Your task to perform on an android device: Toggle the flashlight Image 0: 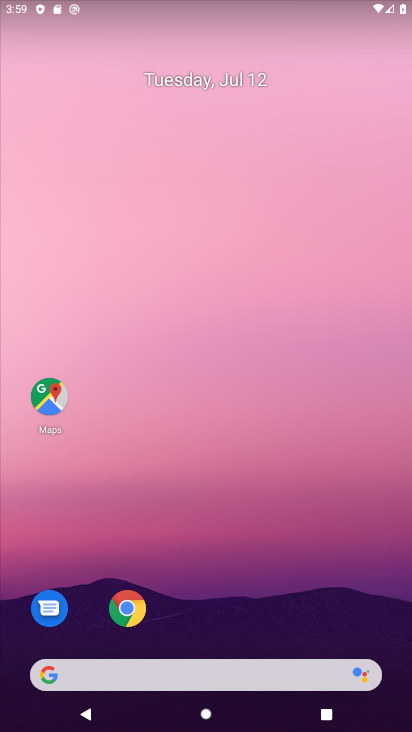
Step 0: drag from (305, 7) to (370, 589)
Your task to perform on an android device: Toggle the flashlight Image 1: 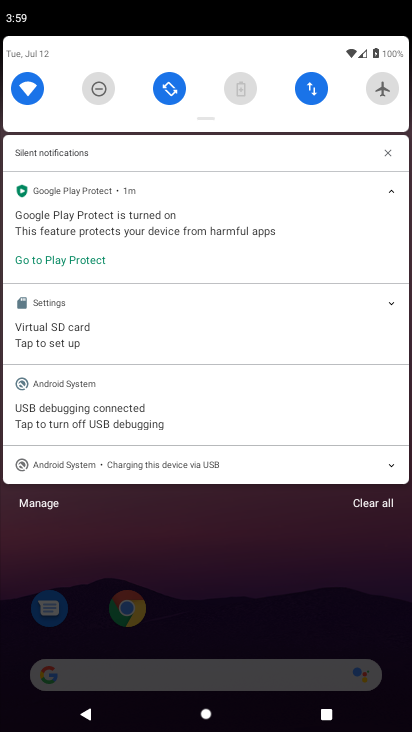
Step 1: drag from (210, 43) to (184, 510)
Your task to perform on an android device: Toggle the flashlight Image 2: 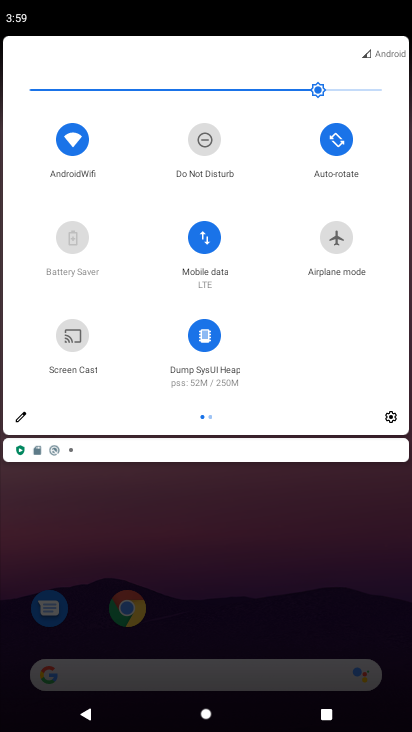
Step 2: click (395, 411)
Your task to perform on an android device: Toggle the flashlight Image 3: 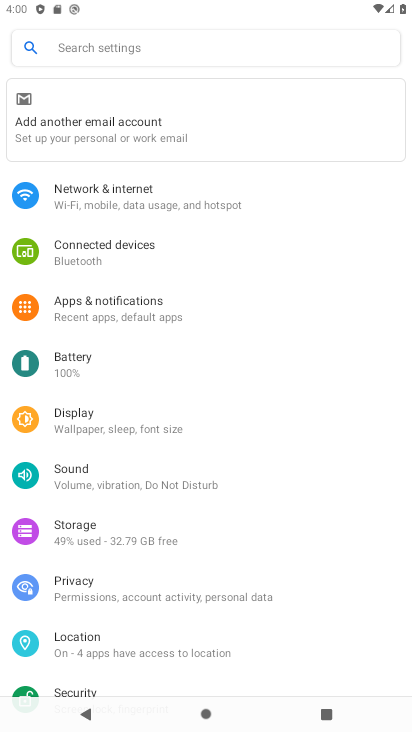
Step 3: task complete